Your task to perform on an android device: find photos in the google photos app Image 0: 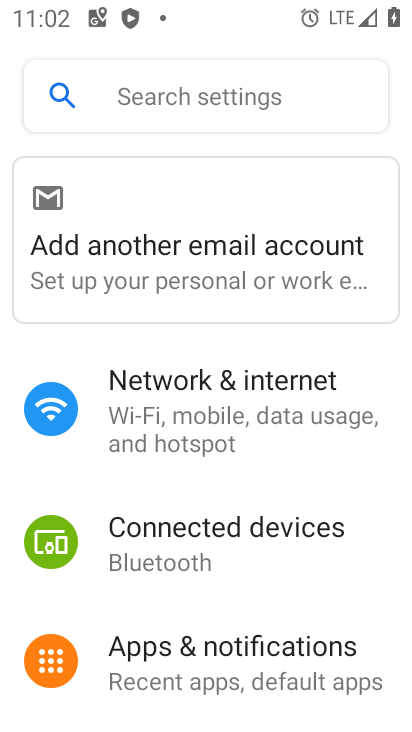
Step 0: press home button
Your task to perform on an android device: find photos in the google photos app Image 1: 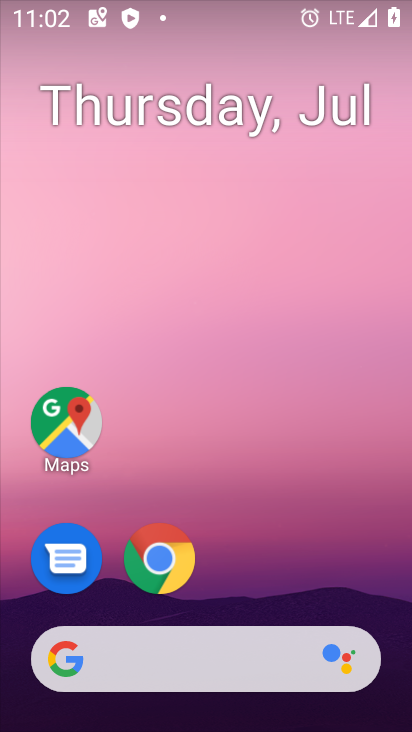
Step 1: drag from (373, 573) to (366, 72)
Your task to perform on an android device: find photos in the google photos app Image 2: 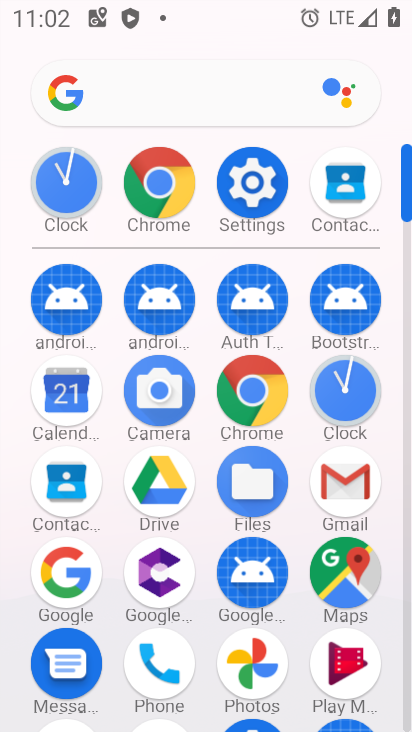
Step 2: drag from (393, 604) to (394, 386)
Your task to perform on an android device: find photos in the google photos app Image 3: 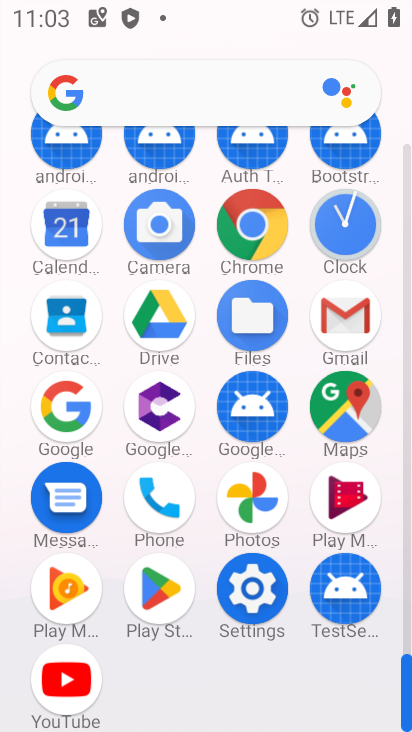
Step 3: click (249, 490)
Your task to perform on an android device: find photos in the google photos app Image 4: 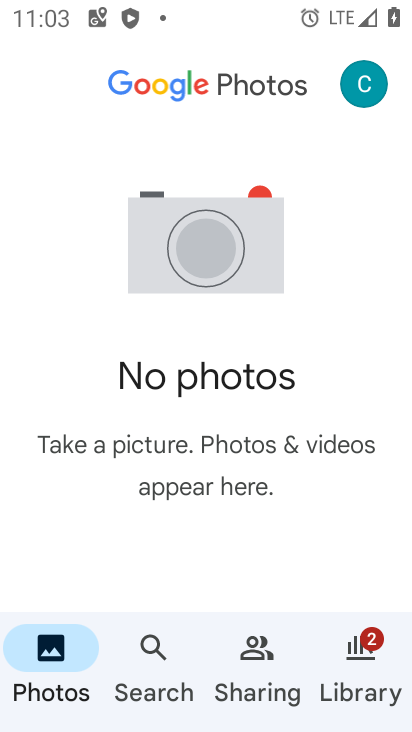
Step 4: task complete